Your task to perform on an android device: turn on wifi Image 0: 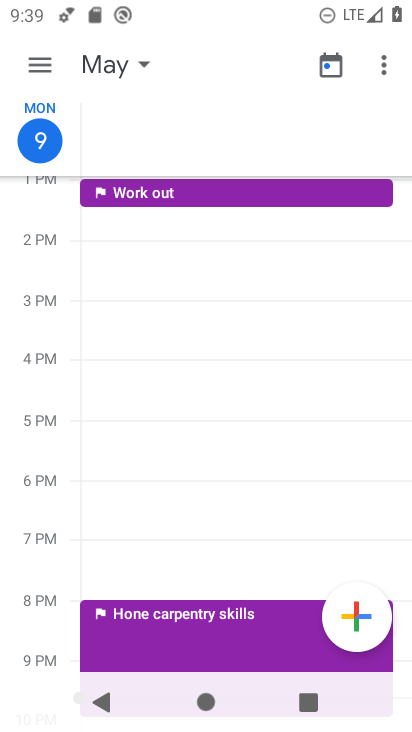
Step 0: press home button
Your task to perform on an android device: turn on wifi Image 1: 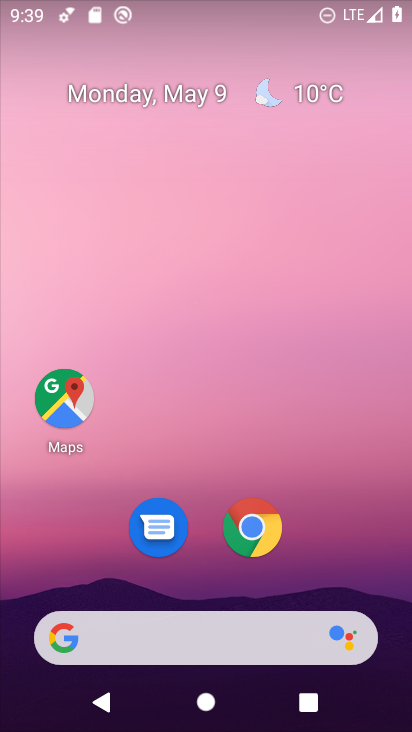
Step 1: drag from (208, 592) to (208, 254)
Your task to perform on an android device: turn on wifi Image 2: 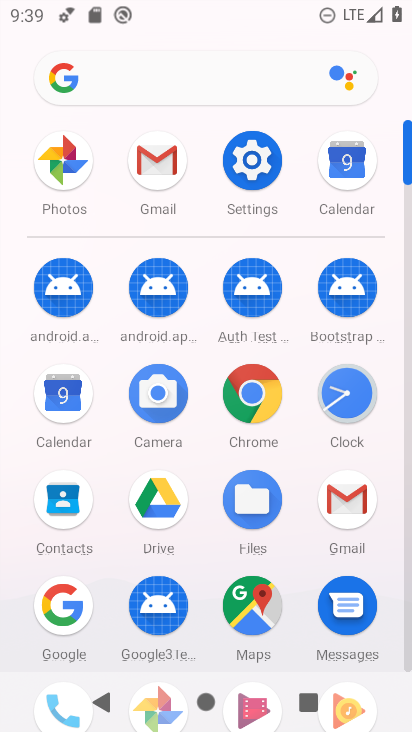
Step 2: click (257, 181)
Your task to perform on an android device: turn on wifi Image 3: 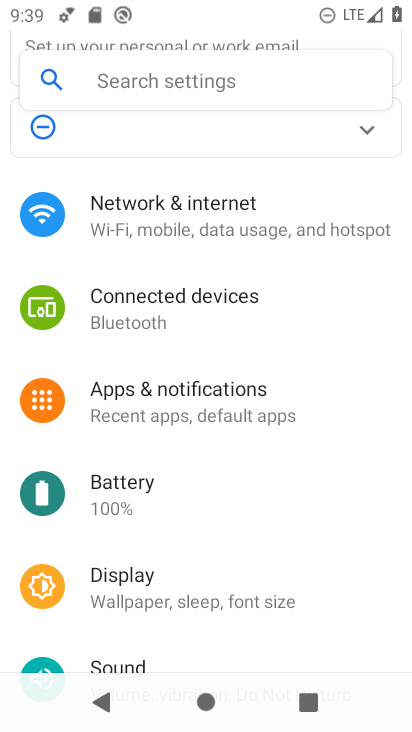
Step 3: drag from (240, 189) to (218, 449)
Your task to perform on an android device: turn on wifi Image 4: 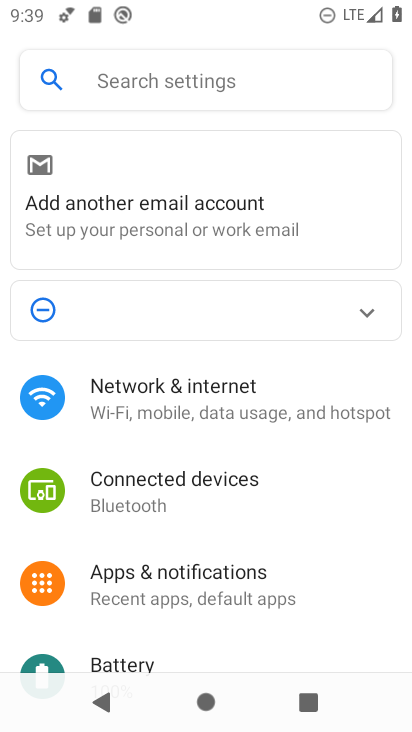
Step 4: click (184, 402)
Your task to perform on an android device: turn on wifi Image 5: 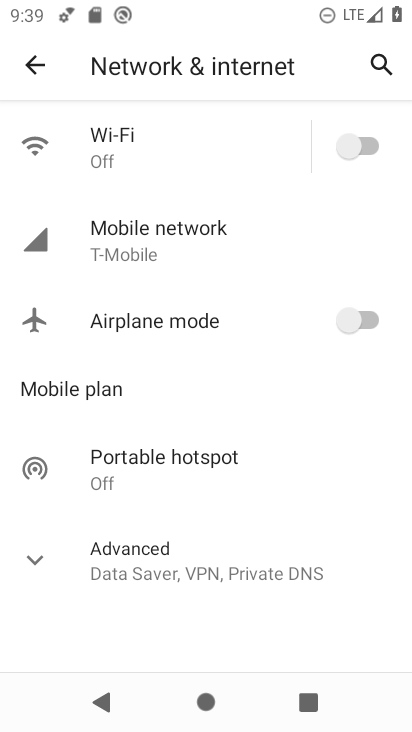
Step 5: click (368, 147)
Your task to perform on an android device: turn on wifi Image 6: 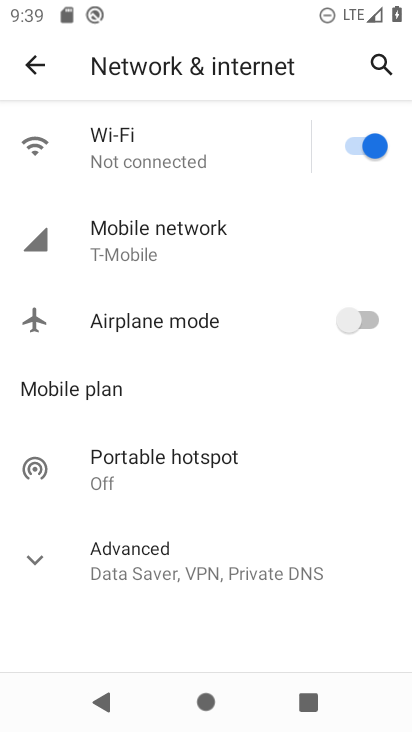
Step 6: task complete